Your task to perform on an android device: open a new tab in the chrome app Image 0: 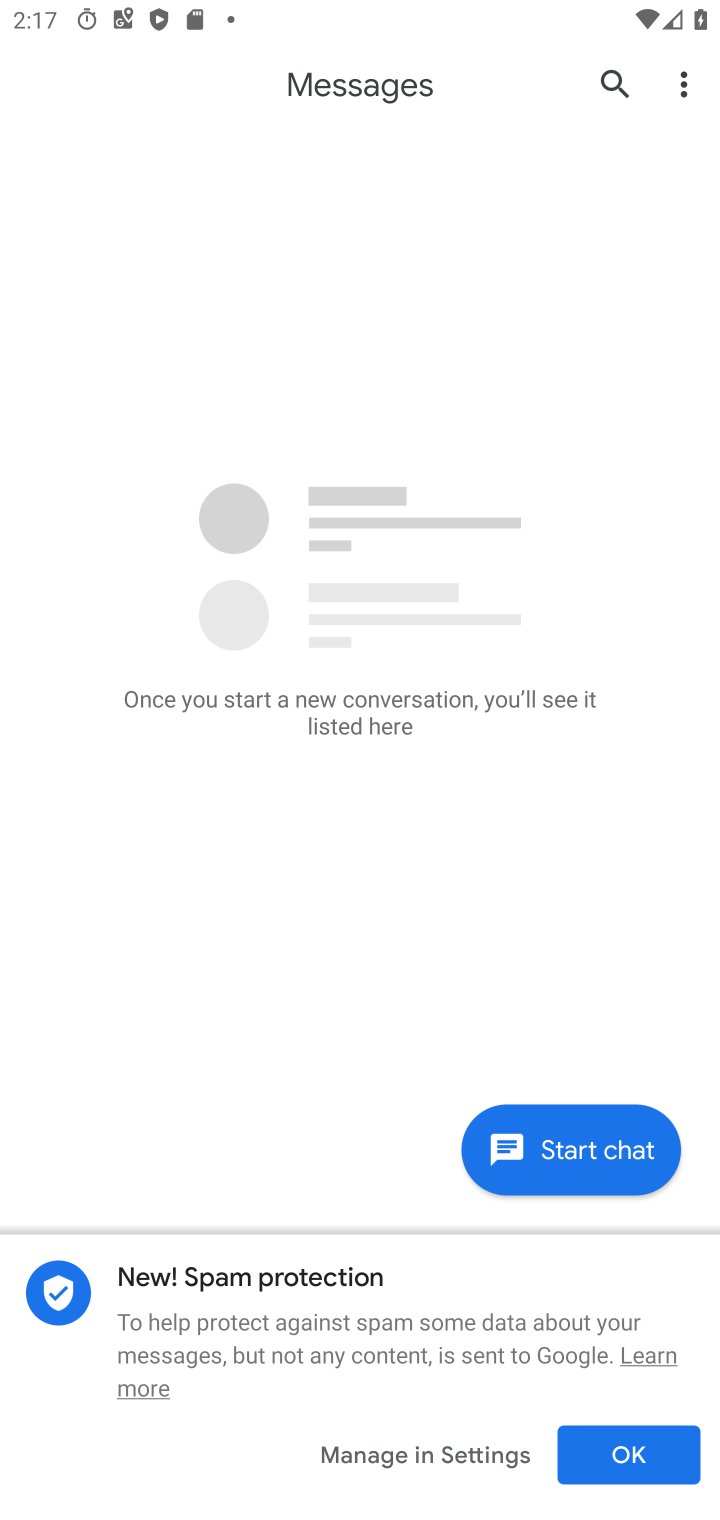
Step 0: press home button
Your task to perform on an android device: open a new tab in the chrome app Image 1: 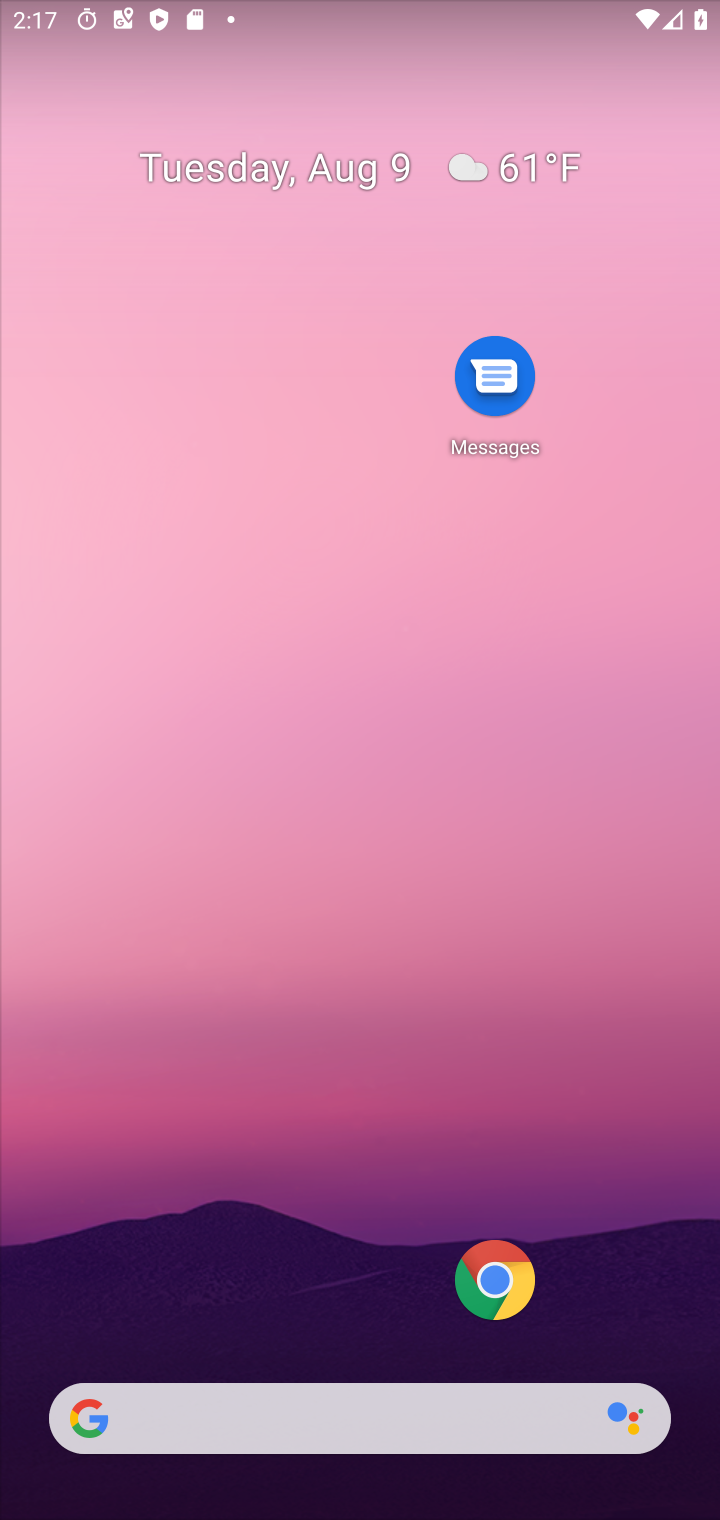
Step 1: click (491, 1292)
Your task to perform on an android device: open a new tab in the chrome app Image 2: 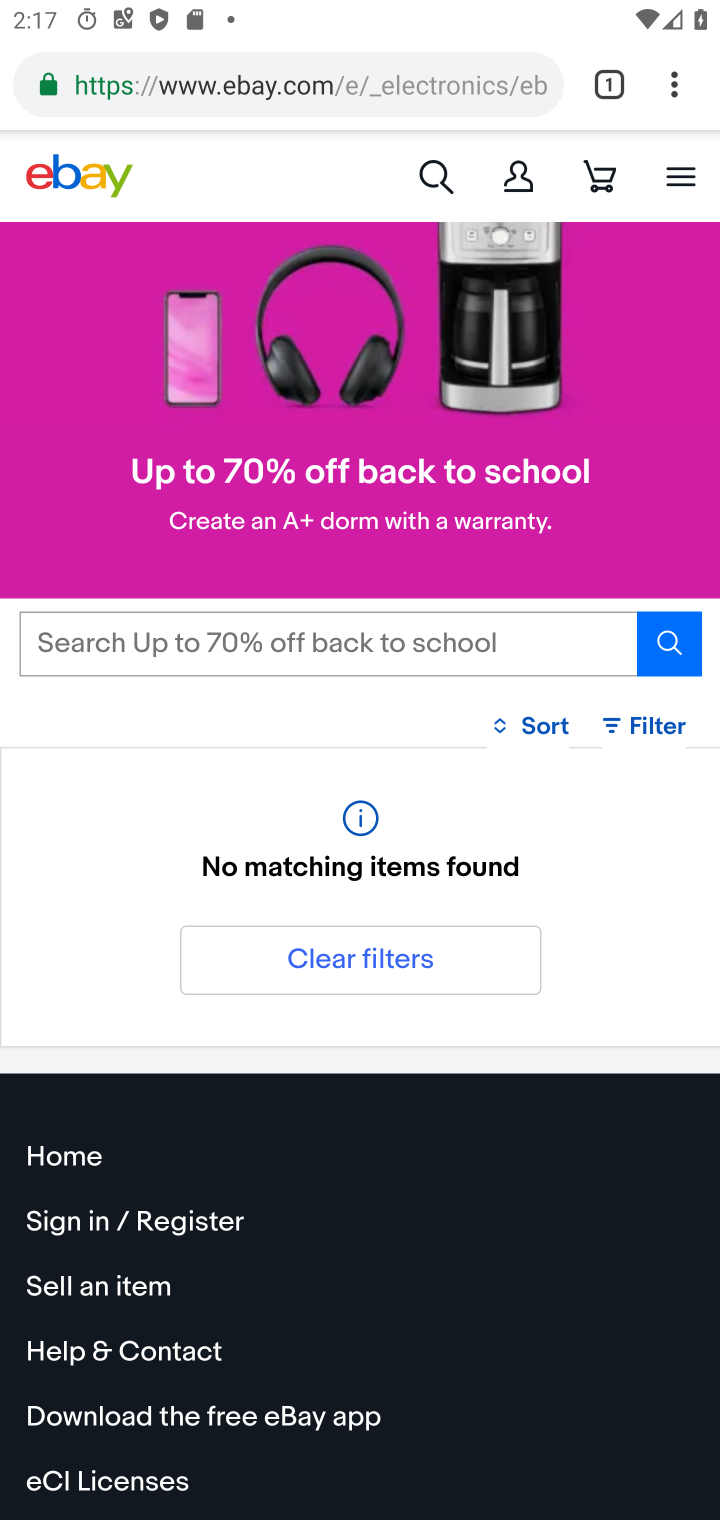
Step 2: task complete